Your task to perform on an android device: Open CNN.com Image 0: 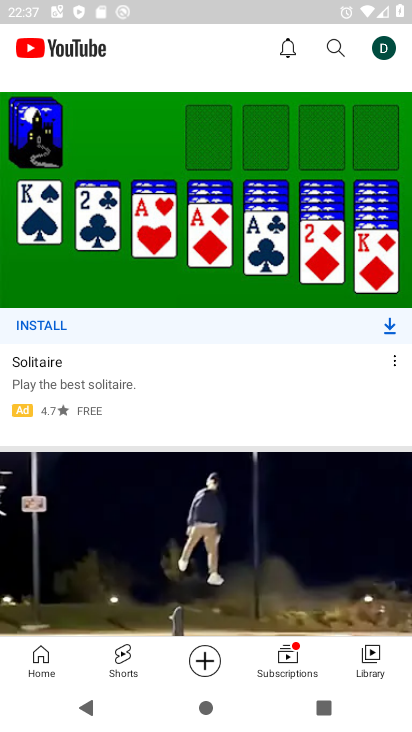
Step 0: press home button
Your task to perform on an android device: Open CNN.com Image 1: 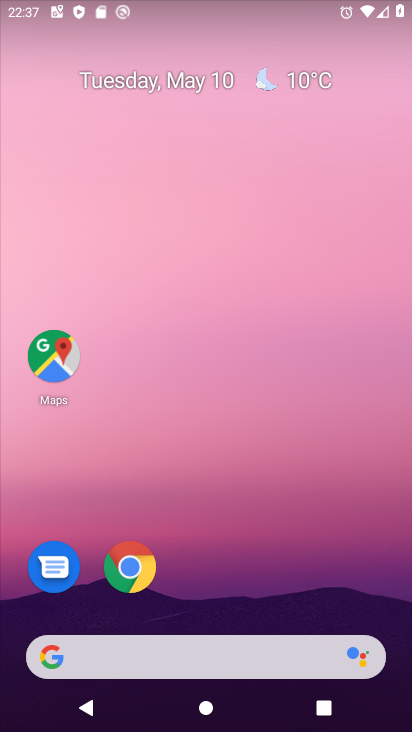
Step 1: click (138, 568)
Your task to perform on an android device: Open CNN.com Image 2: 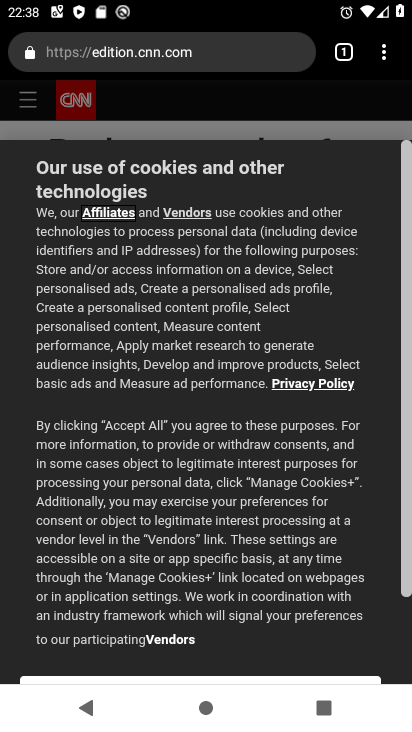
Step 2: task complete